Your task to perform on an android device: Open Yahoo.com Image 0: 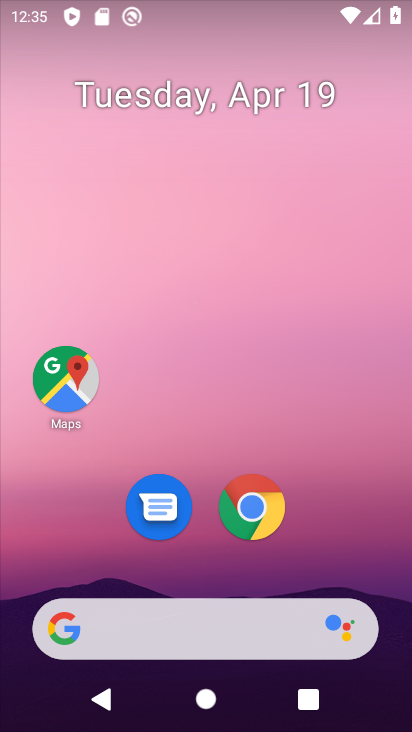
Step 0: click (251, 503)
Your task to perform on an android device: Open Yahoo.com Image 1: 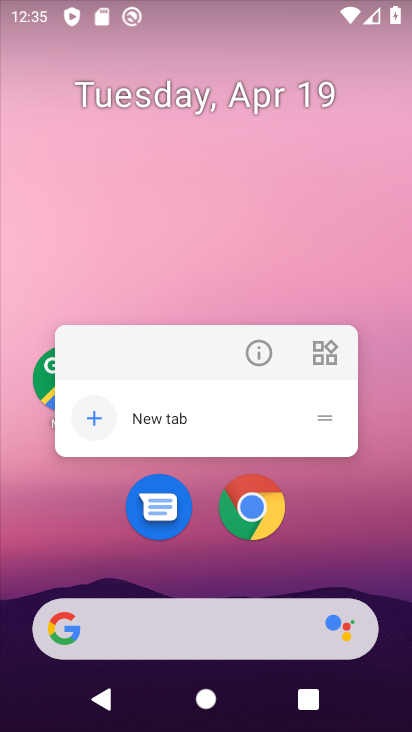
Step 1: click (353, 516)
Your task to perform on an android device: Open Yahoo.com Image 2: 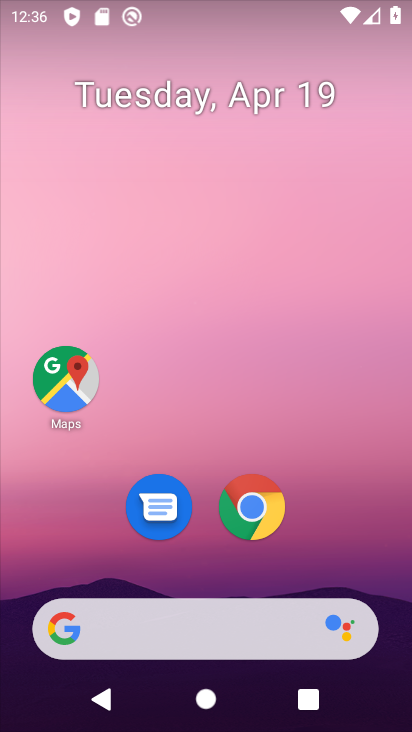
Step 2: drag from (200, 565) to (230, 7)
Your task to perform on an android device: Open Yahoo.com Image 3: 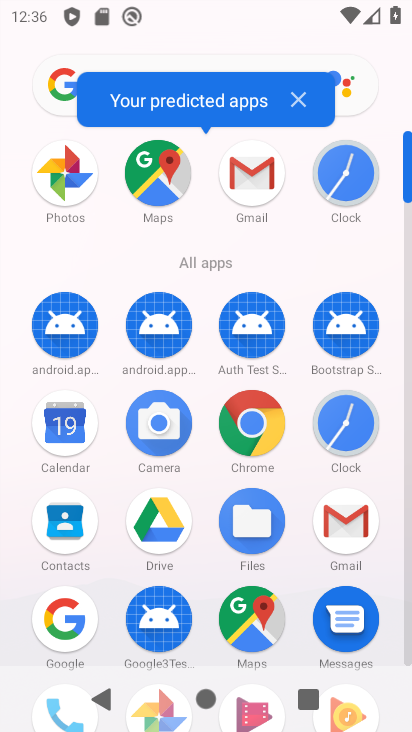
Step 3: click (251, 415)
Your task to perform on an android device: Open Yahoo.com Image 4: 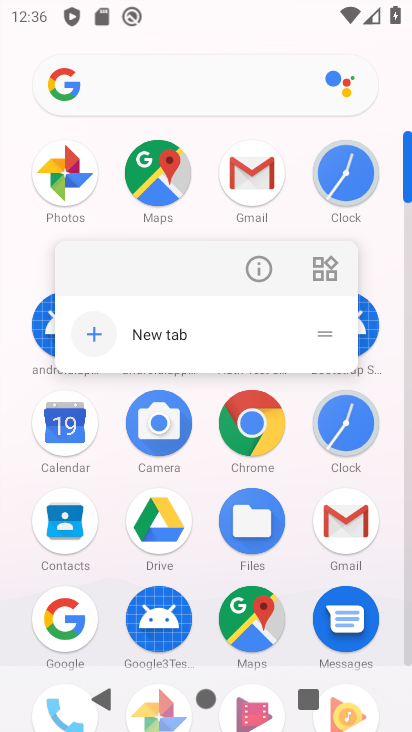
Step 4: click (251, 415)
Your task to perform on an android device: Open Yahoo.com Image 5: 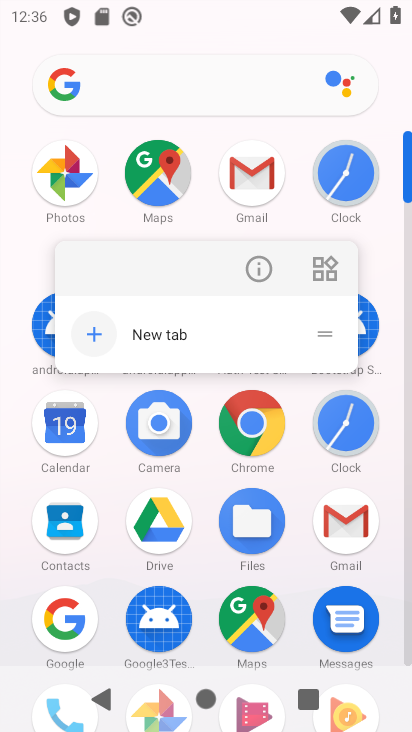
Step 5: click (248, 411)
Your task to perform on an android device: Open Yahoo.com Image 6: 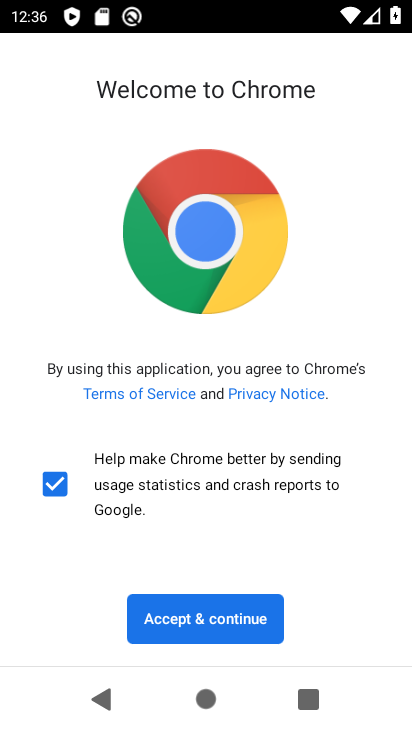
Step 6: click (204, 616)
Your task to perform on an android device: Open Yahoo.com Image 7: 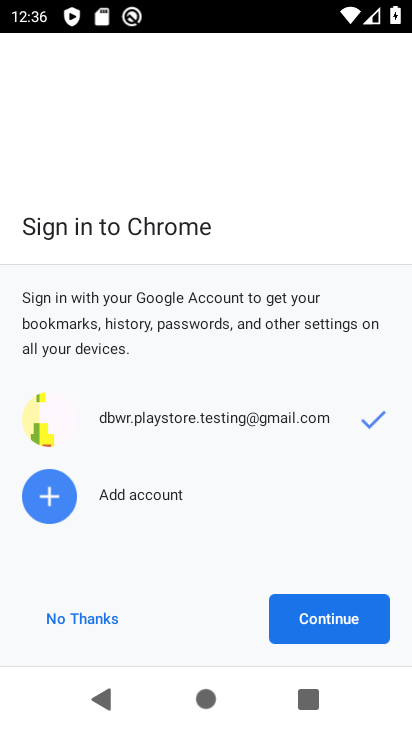
Step 7: click (331, 611)
Your task to perform on an android device: Open Yahoo.com Image 8: 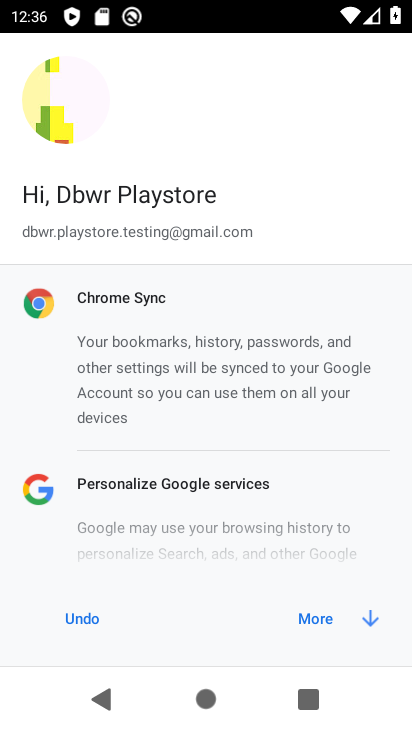
Step 8: click (328, 614)
Your task to perform on an android device: Open Yahoo.com Image 9: 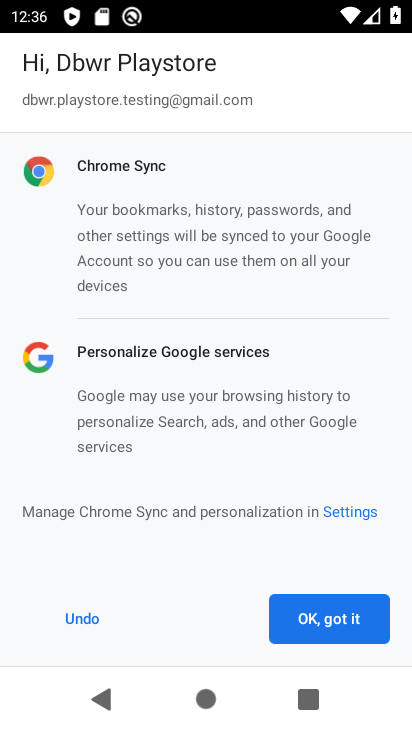
Step 9: click (328, 614)
Your task to perform on an android device: Open Yahoo.com Image 10: 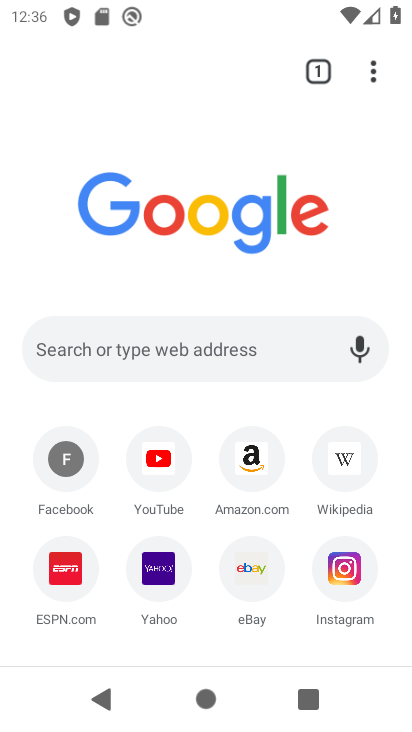
Step 10: click (157, 567)
Your task to perform on an android device: Open Yahoo.com Image 11: 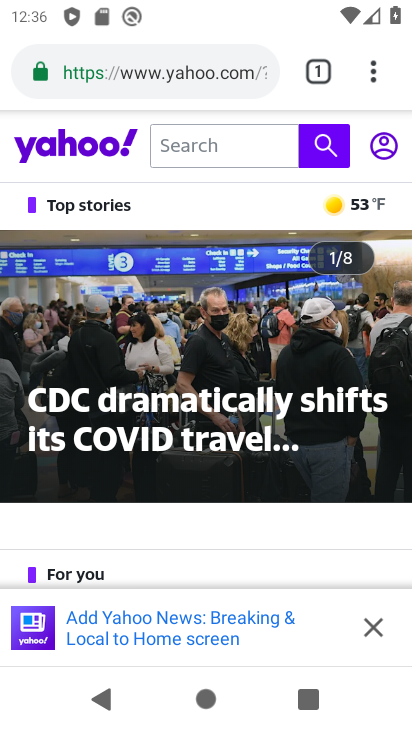
Step 11: click (369, 625)
Your task to perform on an android device: Open Yahoo.com Image 12: 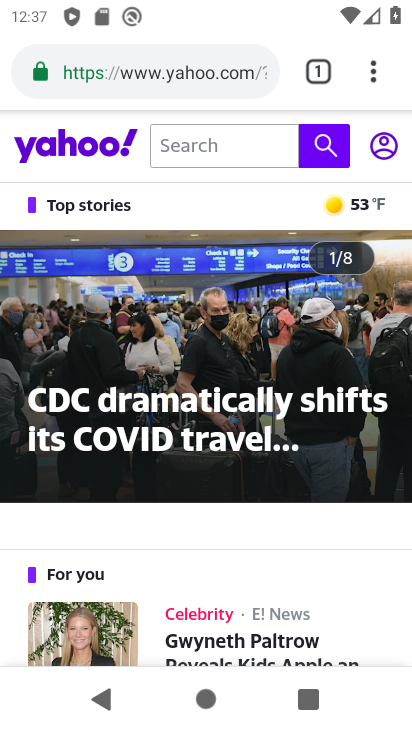
Step 12: task complete